Your task to perform on an android device: add a contact Image 0: 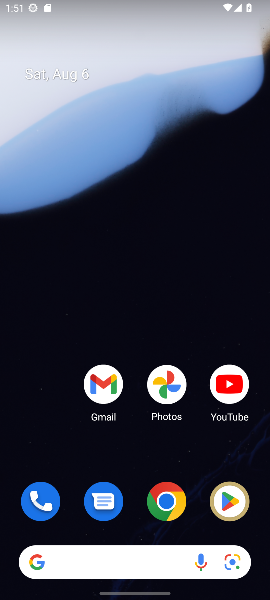
Step 0: press home button
Your task to perform on an android device: add a contact Image 1: 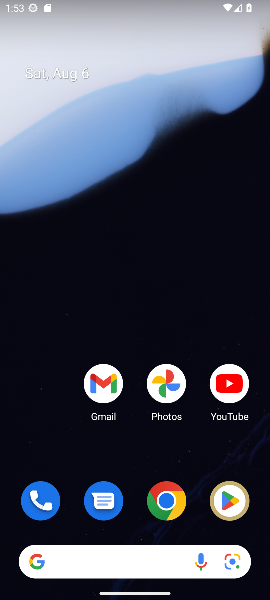
Step 1: drag from (147, 515) to (197, 144)
Your task to perform on an android device: add a contact Image 2: 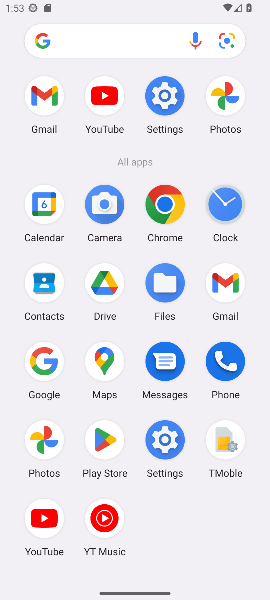
Step 2: click (38, 284)
Your task to perform on an android device: add a contact Image 3: 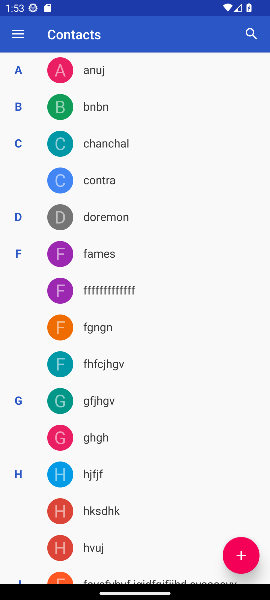
Step 3: click (248, 565)
Your task to perform on an android device: add a contact Image 4: 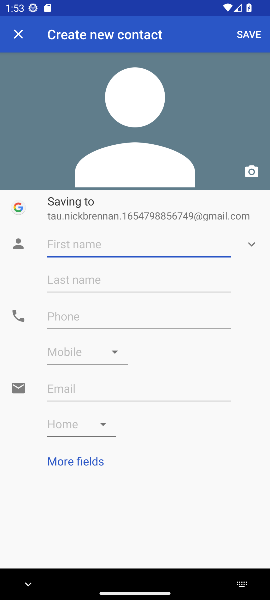
Step 4: type ",m,m,m,"
Your task to perform on an android device: add a contact Image 5: 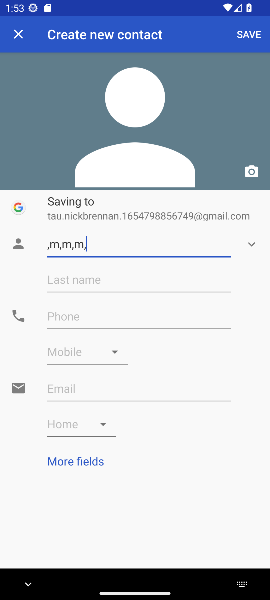
Step 5: click (107, 315)
Your task to perform on an android device: add a contact Image 6: 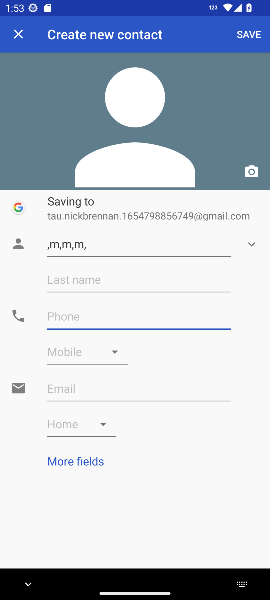
Step 6: type "89898098"
Your task to perform on an android device: add a contact Image 7: 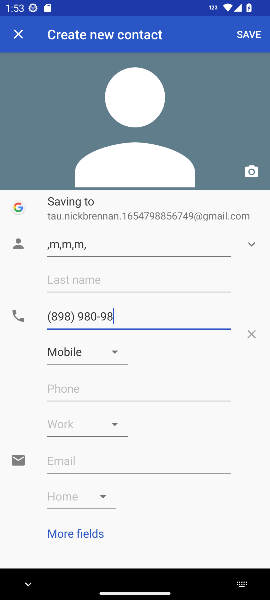
Step 7: click (247, 36)
Your task to perform on an android device: add a contact Image 8: 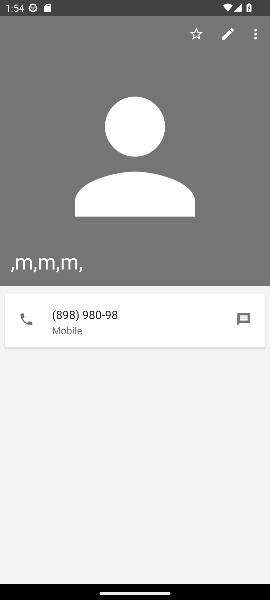
Step 8: task complete